Your task to perform on an android device: Check the news Image 0: 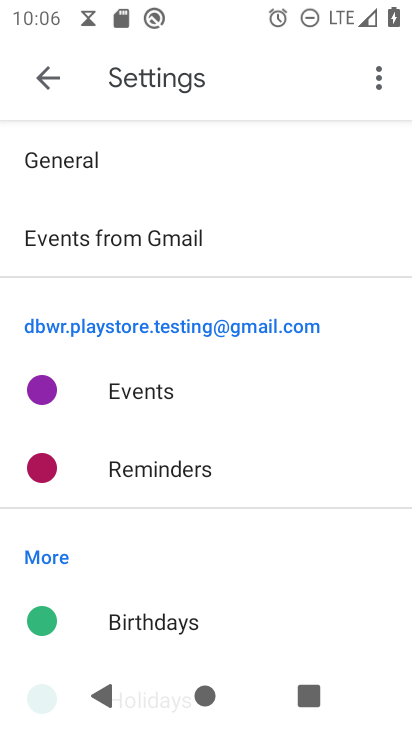
Step 0: press home button
Your task to perform on an android device: Check the news Image 1: 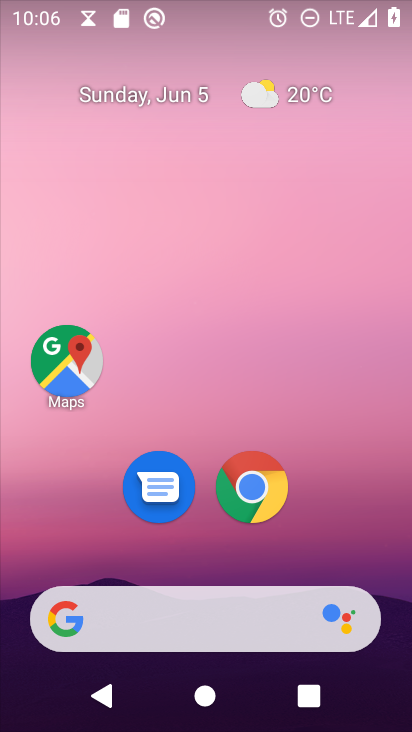
Step 1: click (252, 479)
Your task to perform on an android device: Check the news Image 2: 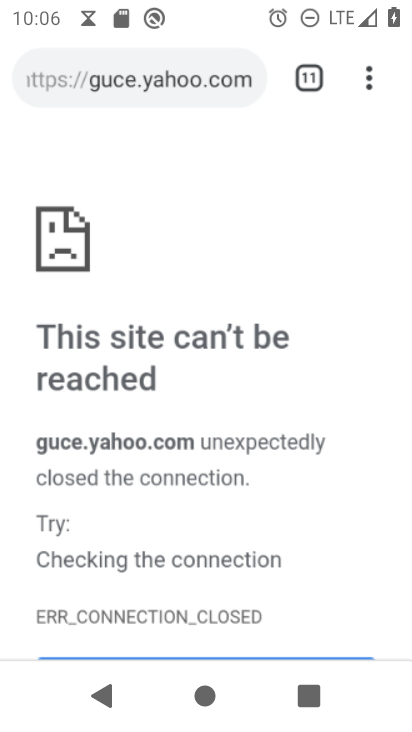
Step 2: click (360, 70)
Your task to perform on an android device: Check the news Image 3: 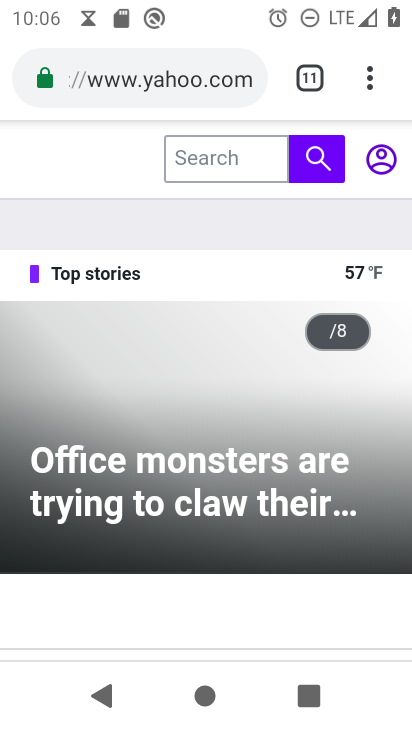
Step 3: click (372, 76)
Your task to perform on an android device: Check the news Image 4: 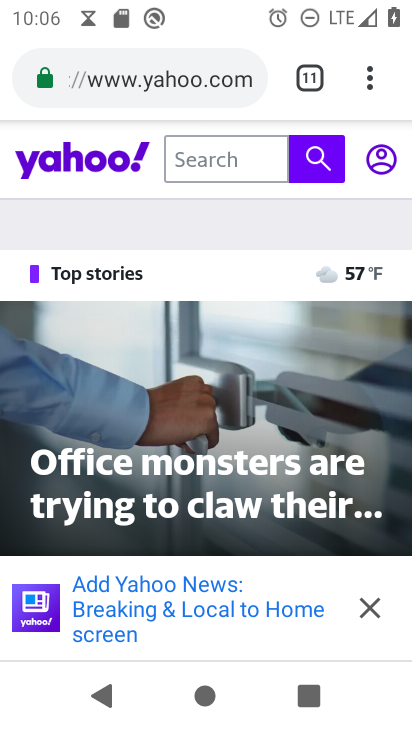
Step 4: click (389, 72)
Your task to perform on an android device: Check the news Image 5: 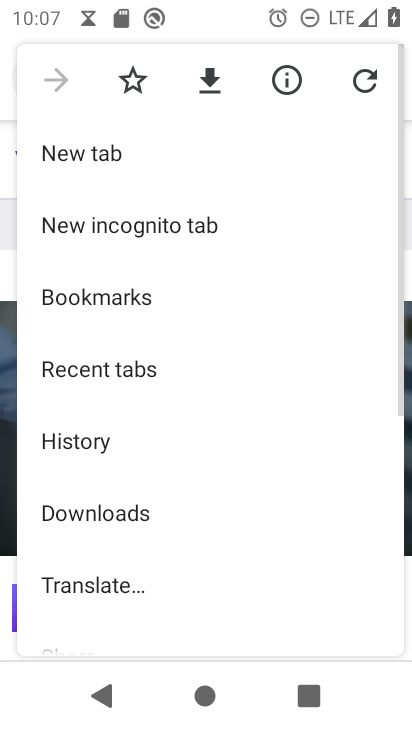
Step 5: click (139, 142)
Your task to perform on an android device: Check the news Image 6: 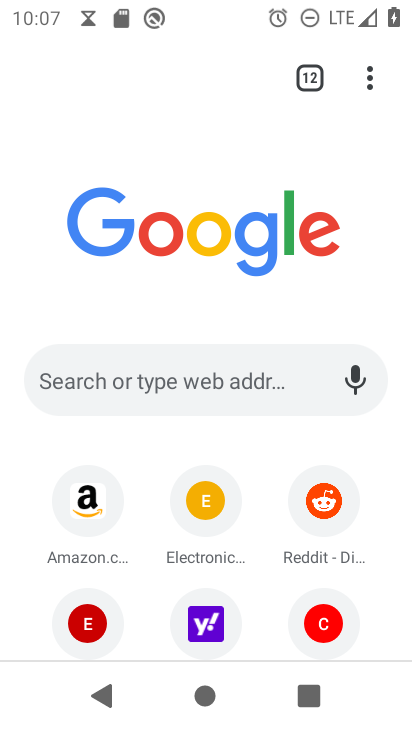
Step 6: click (250, 366)
Your task to perform on an android device: Check the news Image 7: 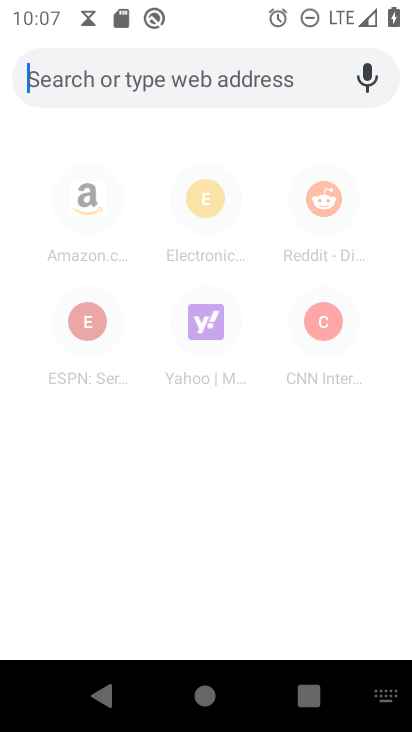
Step 7: click (155, 80)
Your task to perform on an android device: Check the news Image 8: 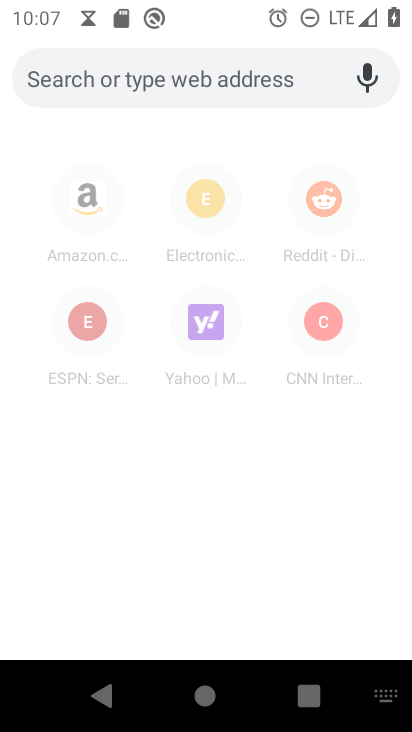
Step 8: type "Check the news"
Your task to perform on an android device: Check the news Image 9: 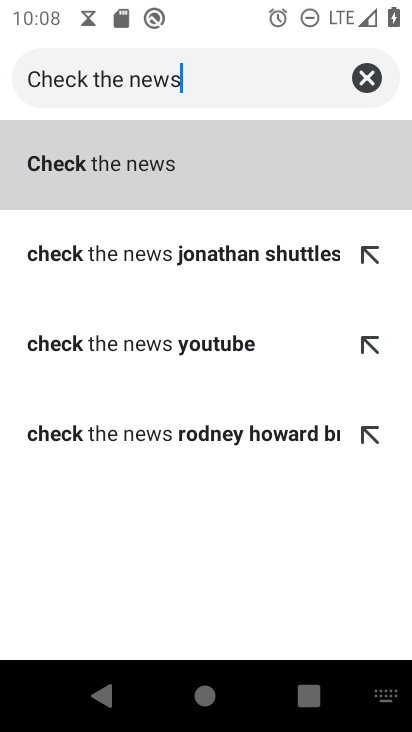
Step 9: click (127, 175)
Your task to perform on an android device: Check the news Image 10: 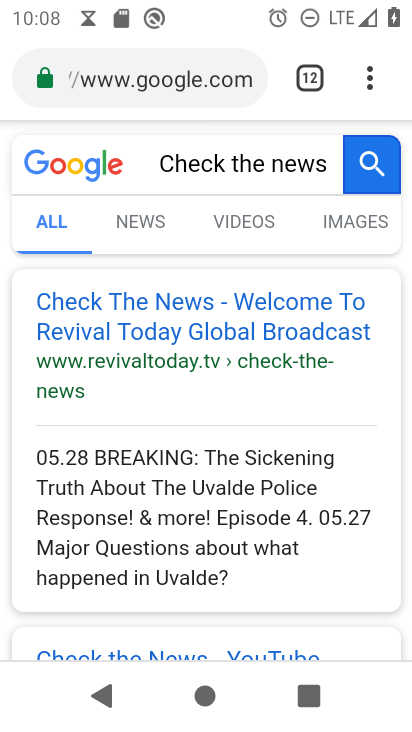
Step 10: task complete